Your task to perform on an android device: Search for Italian restaurants on Maps Image 0: 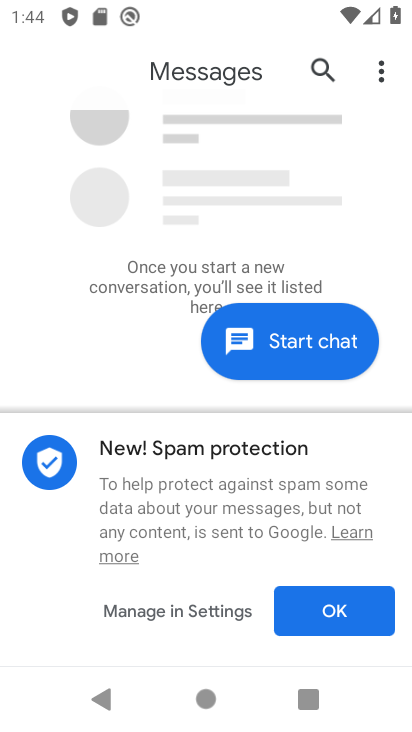
Step 0: press home button
Your task to perform on an android device: Search for Italian restaurants on Maps Image 1: 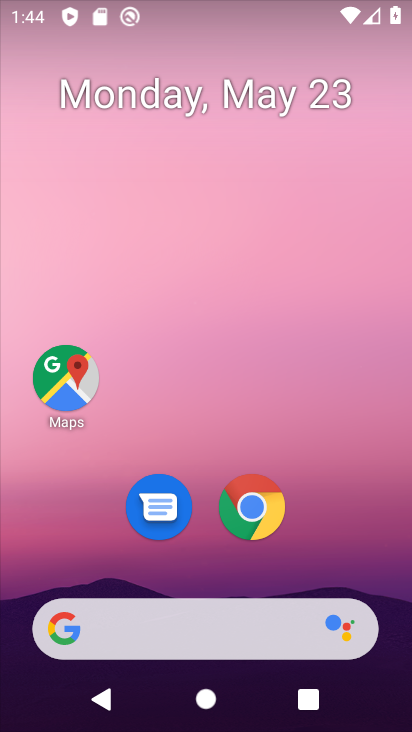
Step 1: drag from (203, 728) to (197, 47)
Your task to perform on an android device: Search for Italian restaurants on Maps Image 2: 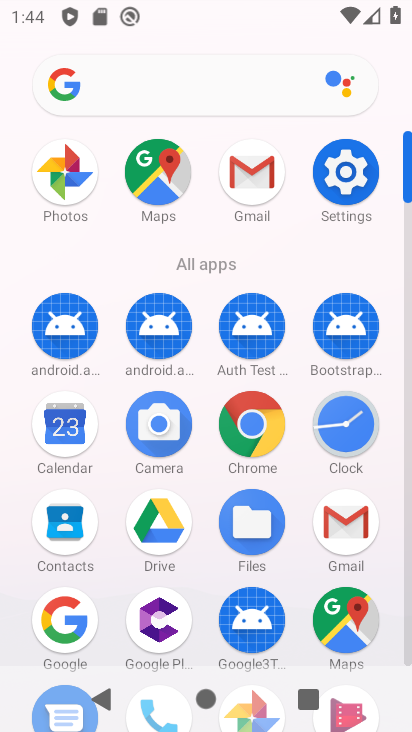
Step 2: click (261, 625)
Your task to perform on an android device: Search for Italian restaurants on Maps Image 3: 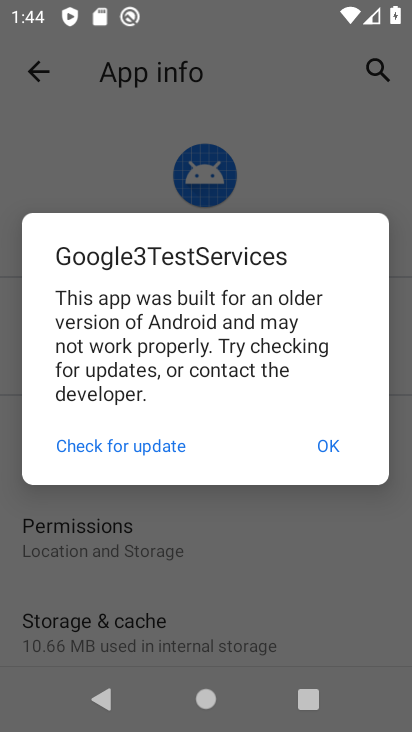
Step 3: press home button
Your task to perform on an android device: Search for Italian restaurants on Maps Image 4: 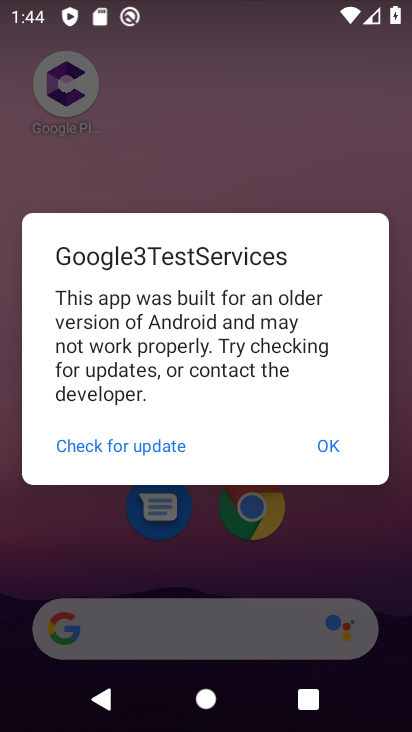
Step 4: click (333, 441)
Your task to perform on an android device: Search for Italian restaurants on Maps Image 5: 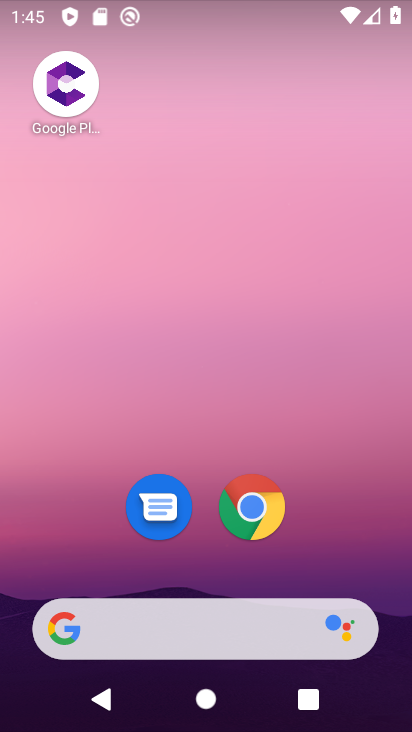
Step 5: drag from (210, 724) to (211, 40)
Your task to perform on an android device: Search for Italian restaurants on Maps Image 6: 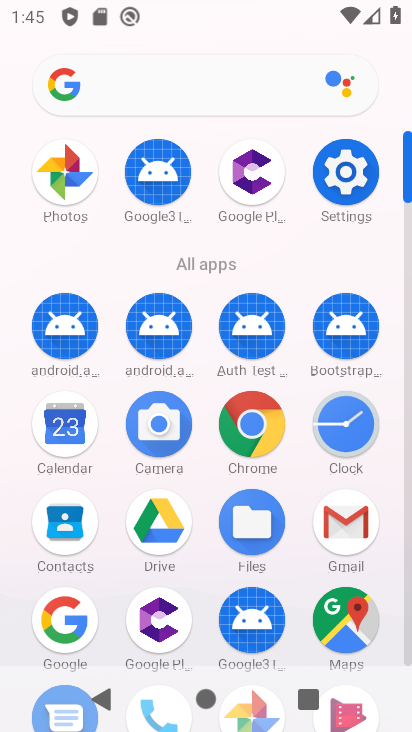
Step 6: click (347, 624)
Your task to perform on an android device: Search for Italian restaurants on Maps Image 7: 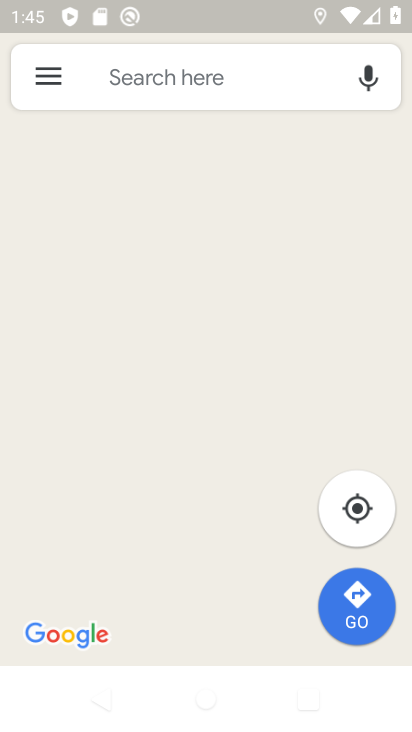
Step 7: click (182, 80)
Your task to perform on an android device: Search for Italian restaurants on Maps Image 8: 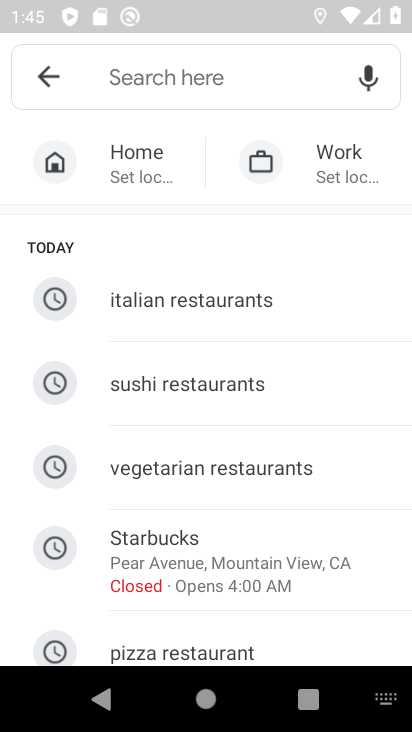
Step 8: type "italian restaurants"
Your task to perform on an android device: Search for Italian restaurants on Maps Image 9: 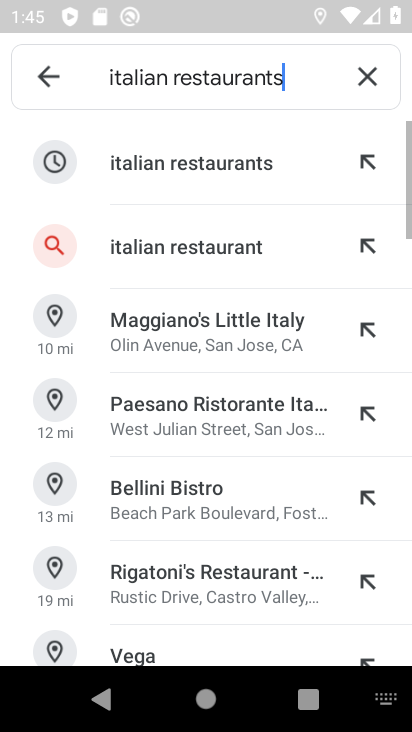
Step 9: click (171, 166)
Your task to perform on an android device: Search for Italian restaurants on Maps Image 10: 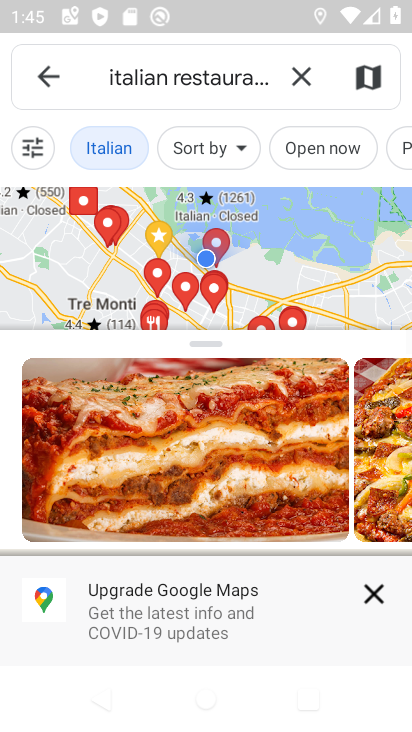
Step 10: task complete